Your task to perform on an android device: delete a single message in the gmail app Image 0: 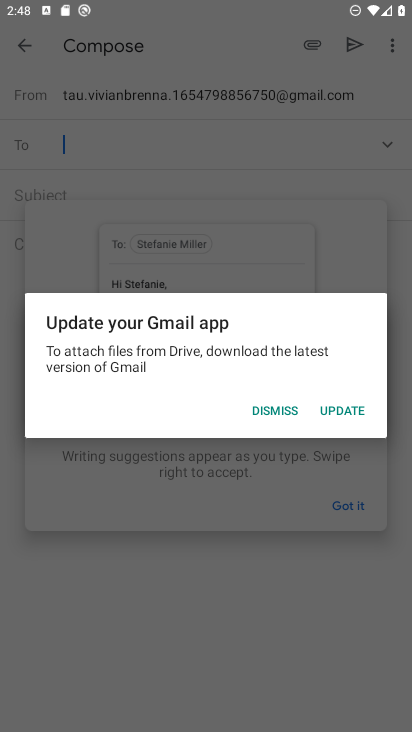
Step 0: press home button
Your task to perform on an android device: delete a single message in the gmail app Image 1: 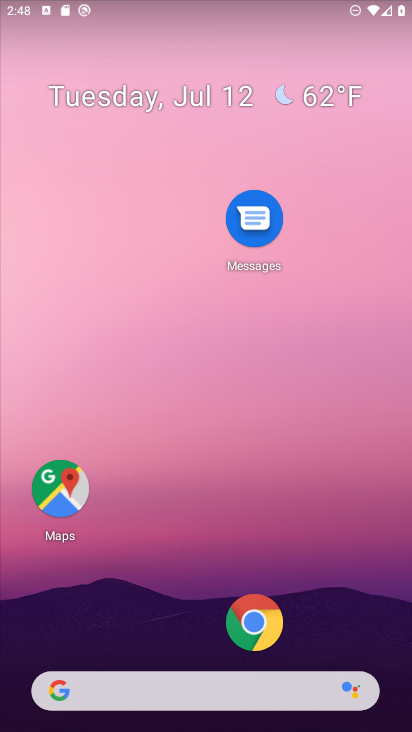
Step 1: drag from (185, 652) to (140, 0)
Your task to perform on an android device: delete a single message in the gmail app Image 2: 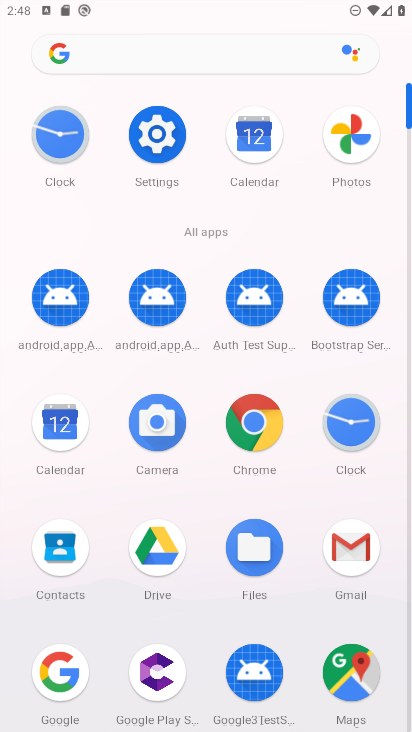
Step 2: click (347, 530)
Your task to perform on an android device: delete a single message in the gmail app Image 3: 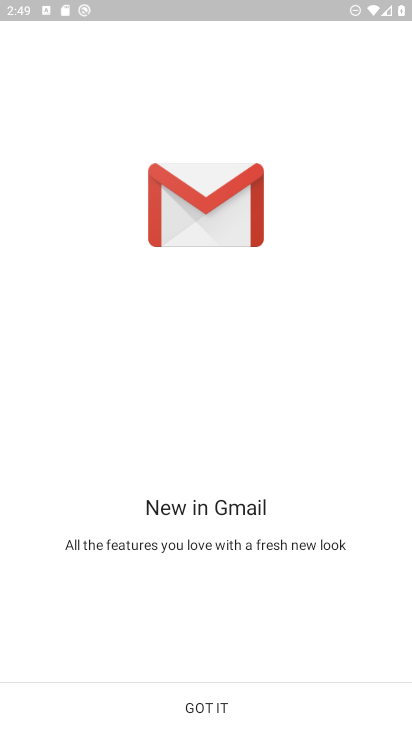
Step 3: click (209, 707)
Your task to perform on an android device: delete a single message in the gmail app Image 4: 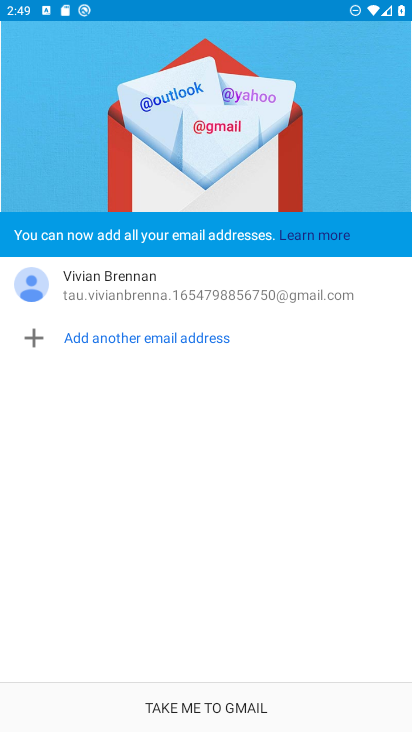
Step 4: click (200, 710)
Your task to perform on an android device: delete a single message in the gmail app Image 5: 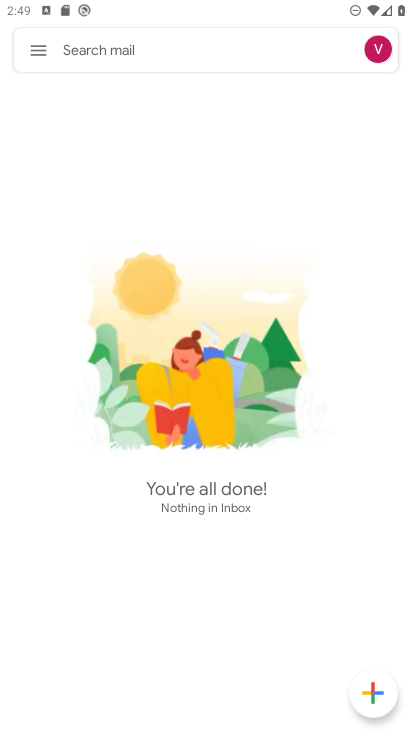
Step 5: task complete